Your task to perform on an android device: Add "razer blade" to the cart on target, then select checkout. Image 0: 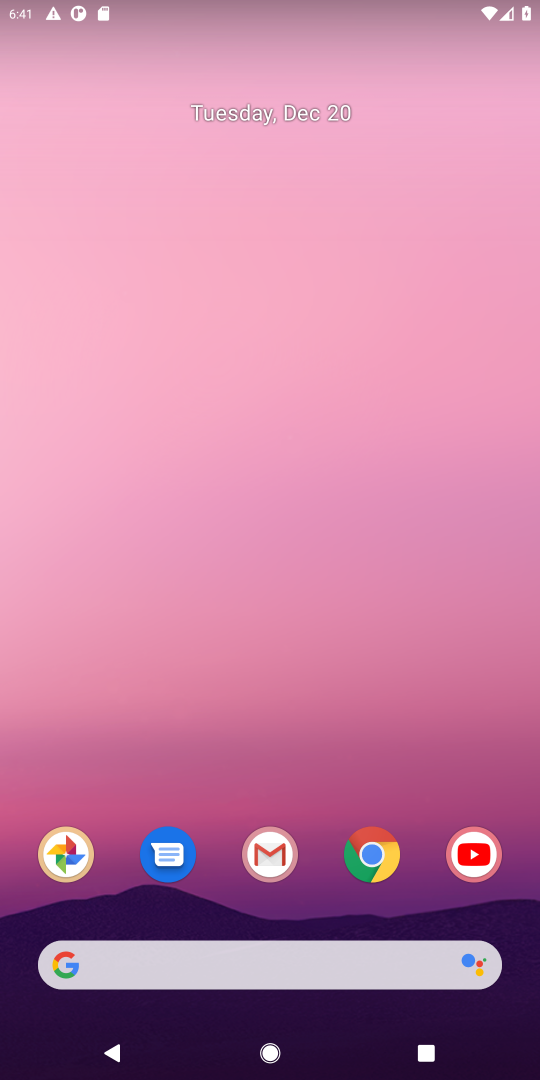
Step 0: click (380, 853)
Your task to perform on an android device: Add "razer blade" to the cart on target, then select checkout. Image 1: 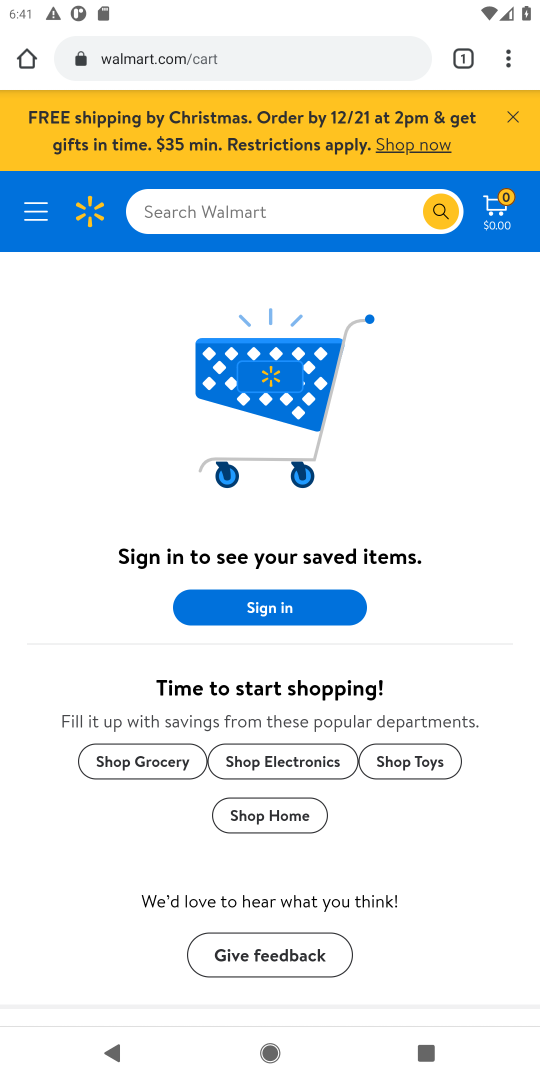
Step 1: click (187, 60)
Your task to perform on an android device: Add "razer blade" to the cart on target, then select checkout. Image 2: 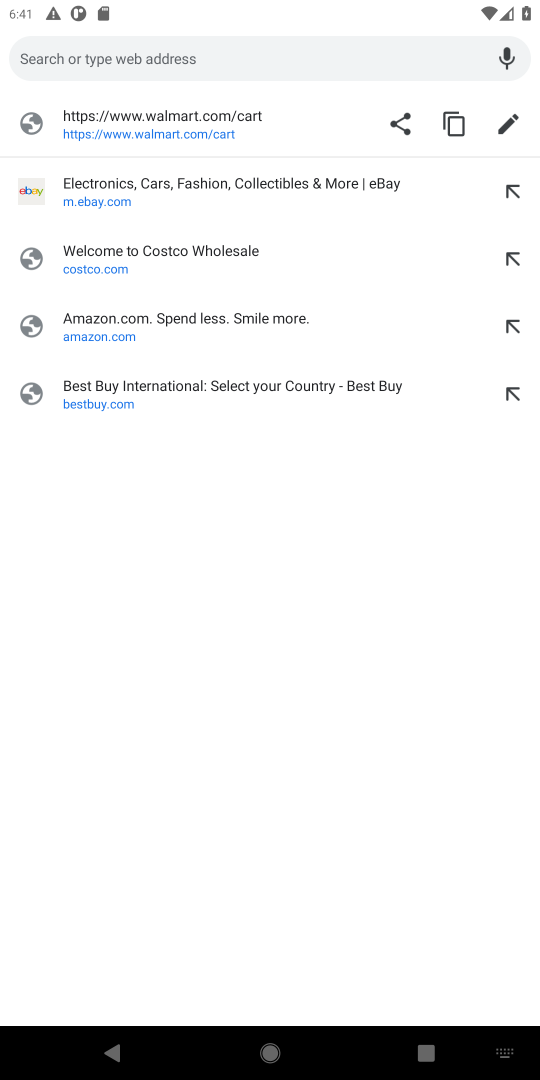
Step 2: type "target.com"
Your task to perform on an android device: Add "razer blade" to the cart on target, then select checkout. Image 3: 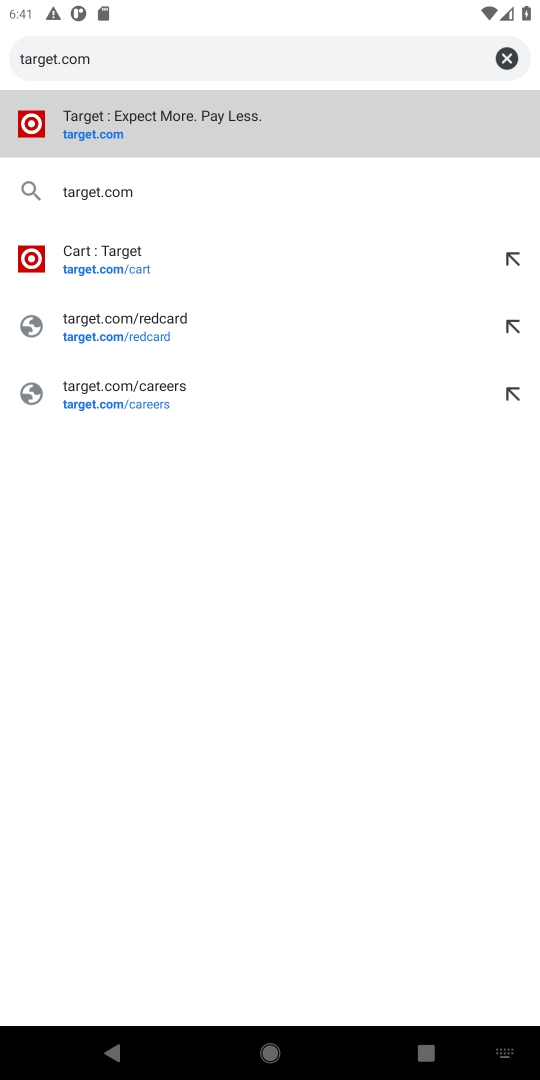
Step 3: click (82, 137)
Your task to perform on an android device: Add "razer blade" to the cart on target, then select checkout. Image 4: 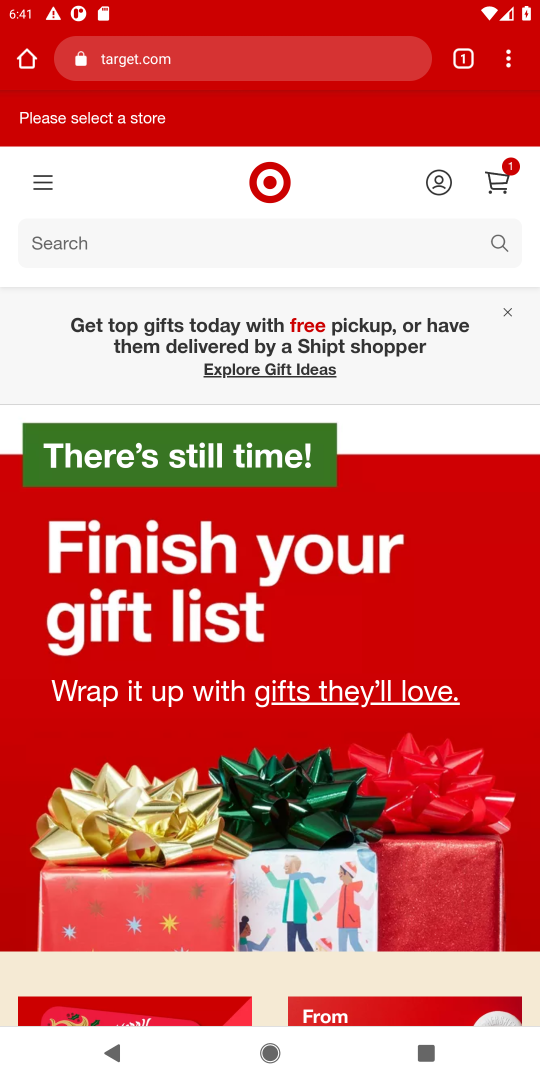
Step 4: click (57, 245)
Your task to perform on an android device: Add "razer blade" to the cart on target, then select checkout. Image 5: 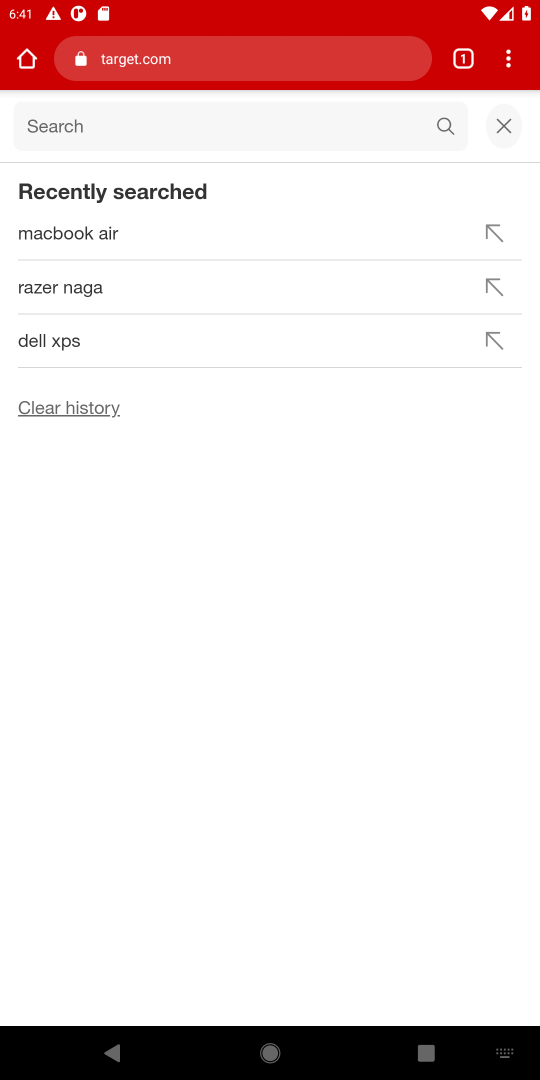
Step 5: type "razer blade"
Your task to perform on an android device: Add "razer blade" to the cart on target, then select checkout. Image 6: 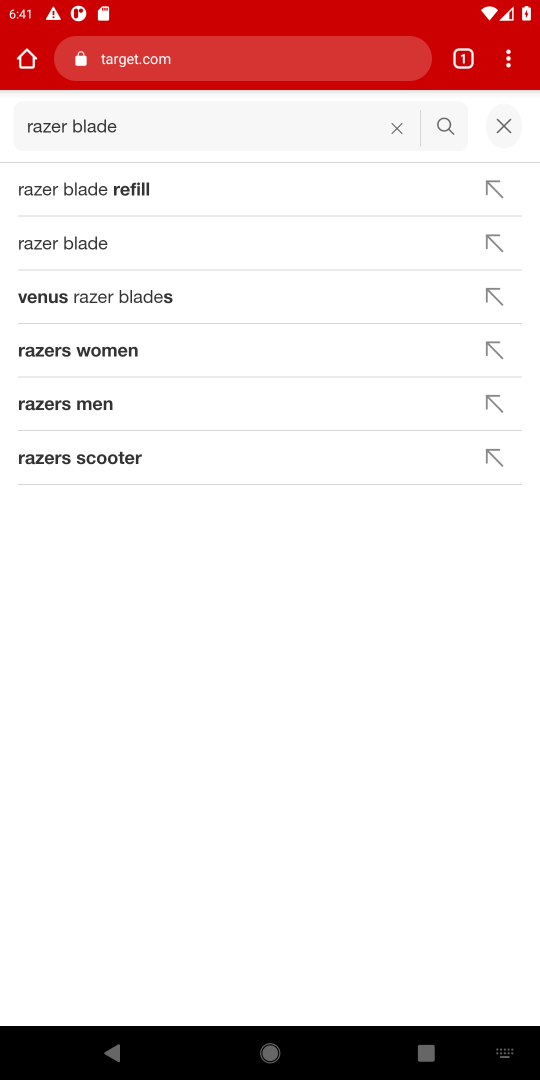
Step 6: click (83, 245)
Your task to perform on an android device: Add "razer blade" to the cart on target, then select checkout. Image 7: 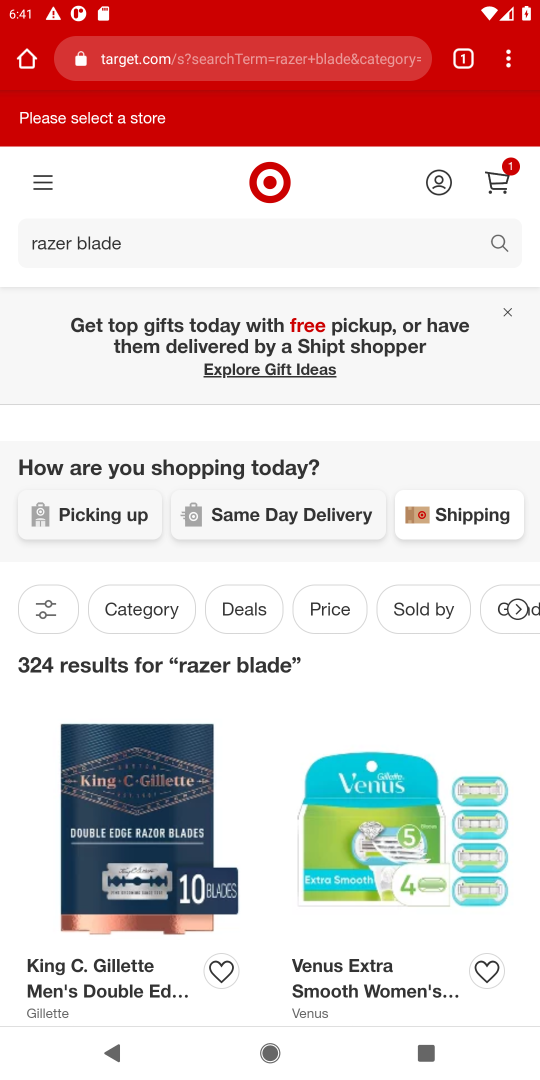
Step 7: task complete